Your task to perform on an android device: Open location settings Image 0: 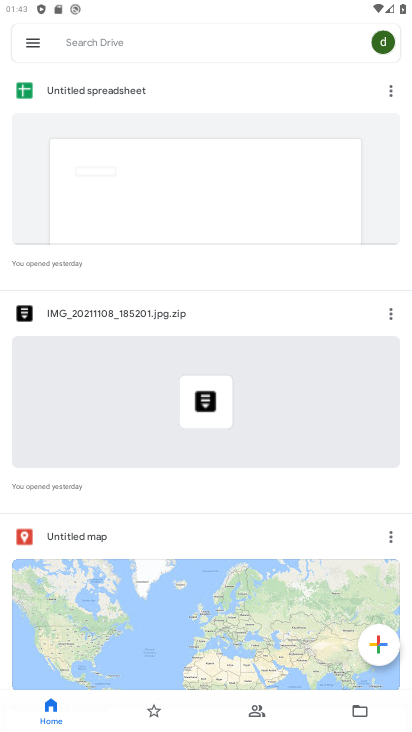
Step 0: press home button
Your task to perform on an android device: Open location settings Image 1: 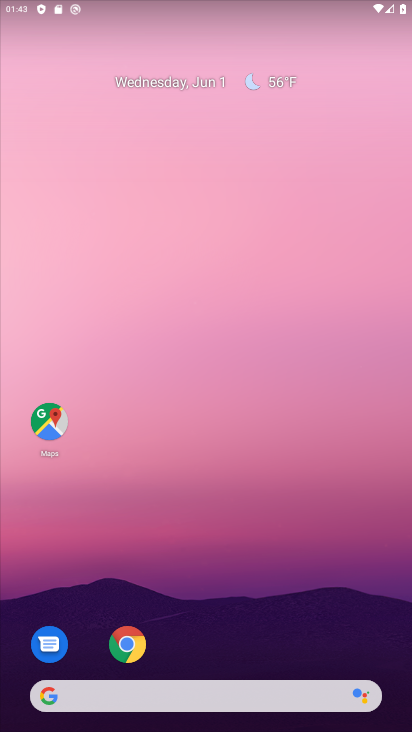
Step 1: drag from (221, 681) to (216, 316)
Your task to perform on an android device: Open location settings Image 2: 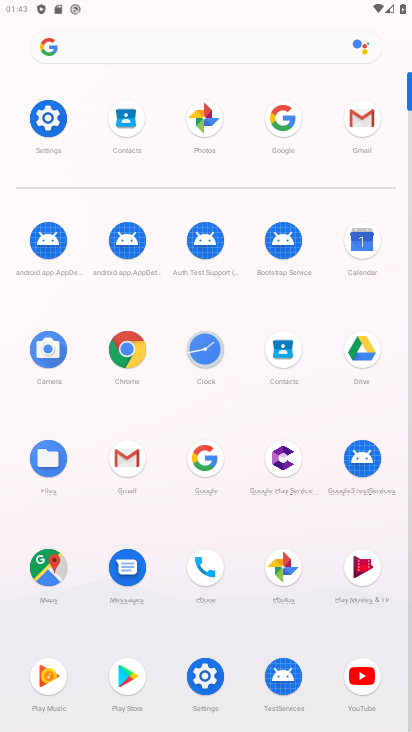
Step 2: click (45, 112)
Your task to perform on an android device: Open location settings Image 3: 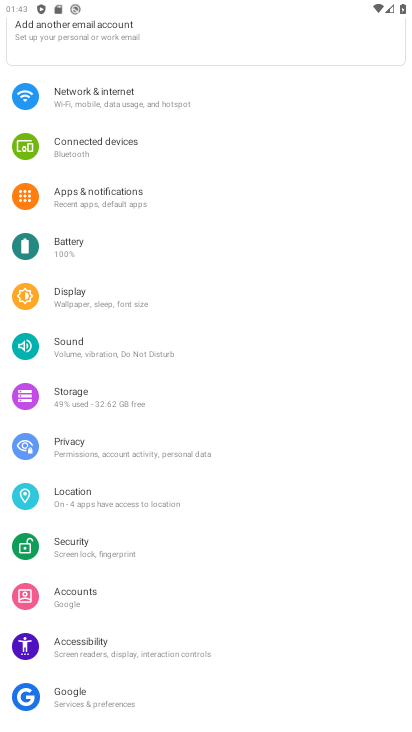
Step 3: click (74, 493)
Your task to perform on an android device: Open location settings Image 4: 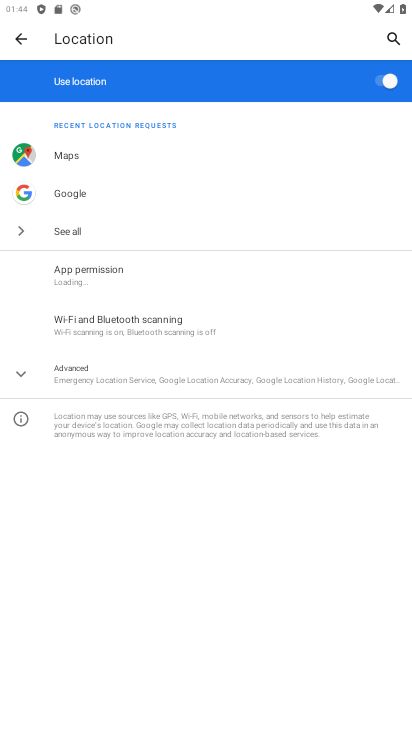
Step 4: click (82, 374)
Your task to perform on an android device: Open location settings Image 5: 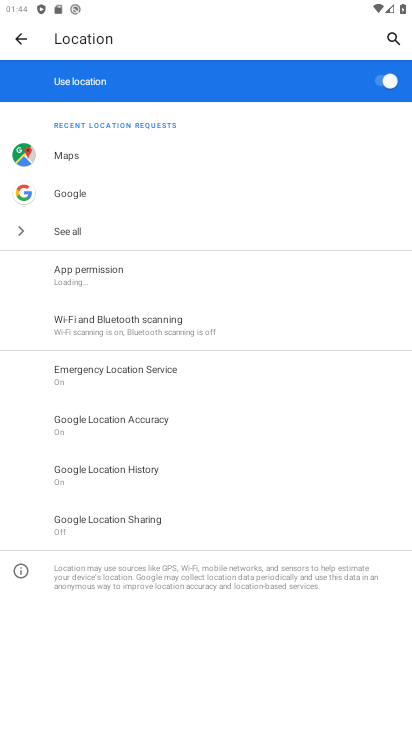
Step 5: task complete